Your task to perform on an android device: Open the web browser Image 0: 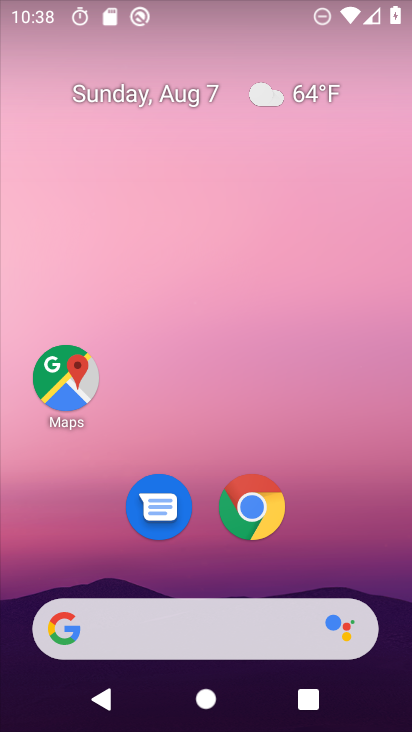
Step 0: drag from (328, 501) to (314, 10)
Your task to perform on an android device: Open the web browser Image 1: 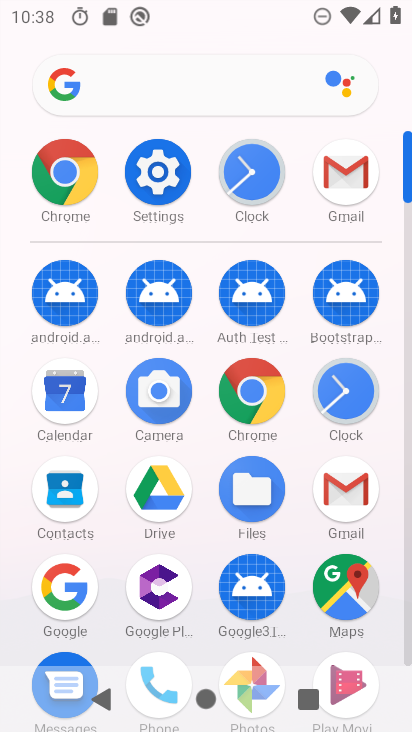
Step 1: click (251, 384)
Your task to perform on an android device: Open the web browser Image 2: 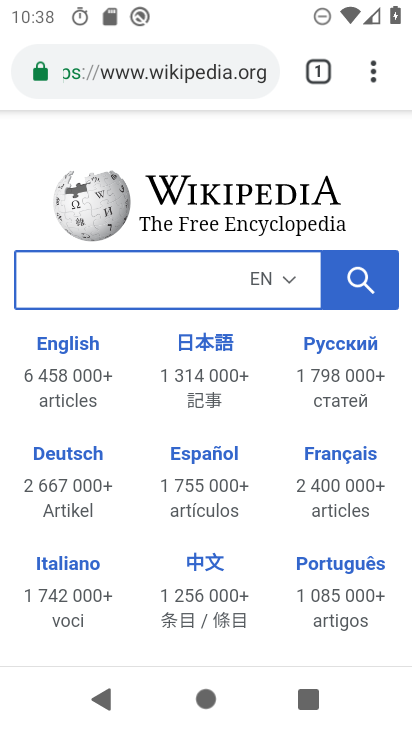
Step 2: task complete